Your task to perform on an android device: turn off translation in the chrome app Image 0: 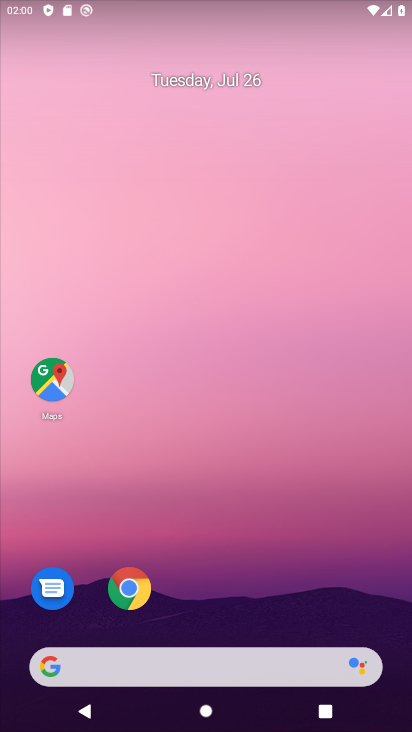
Step 0: drag from (242, 626) to (189, 163)
Your task to perform on an android device: turn off translation in the chrome app Image 1: 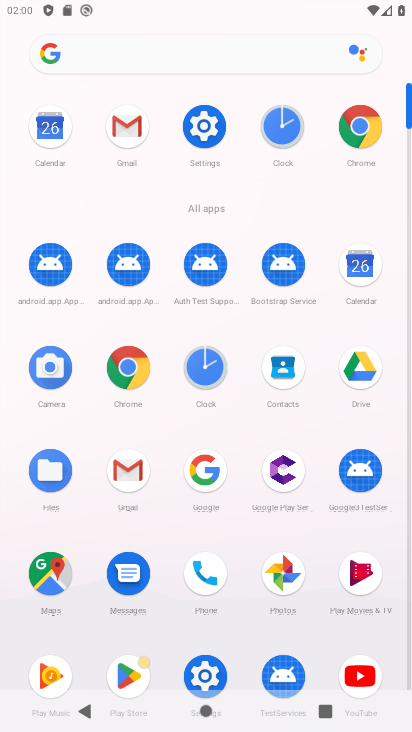
Step 1: click (357, 129)
Your task to perform on an android device: turn off translation in the chrome app Image 2: 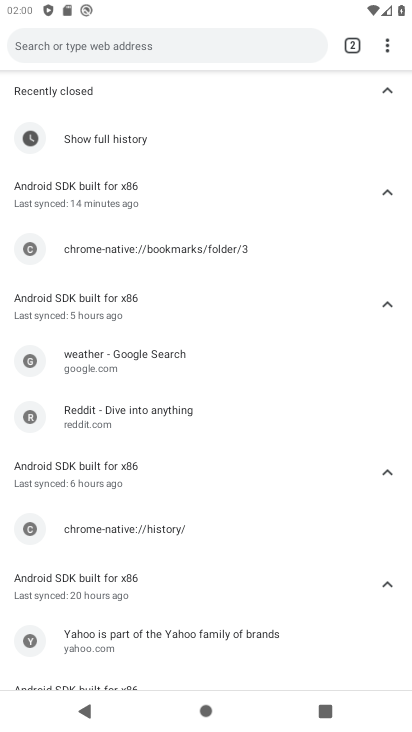
Step 2: click (390, 51)
Your task to perform on an android device: turn off translation in the chrome app Image 3: 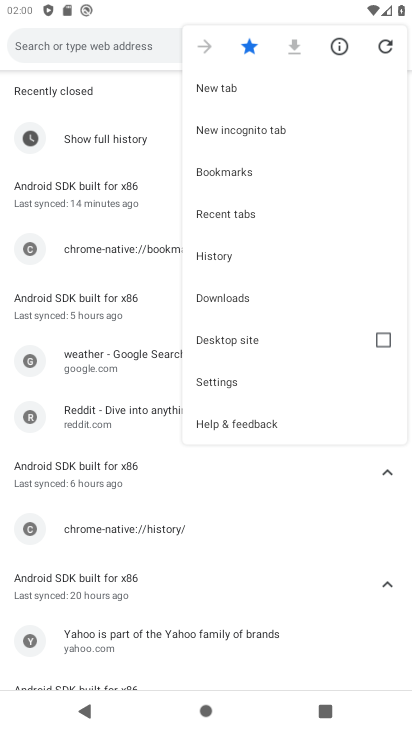
Step 3: click (249, 384)
Your task to perform on an android device: turn off translation in the chrome app Image 4: 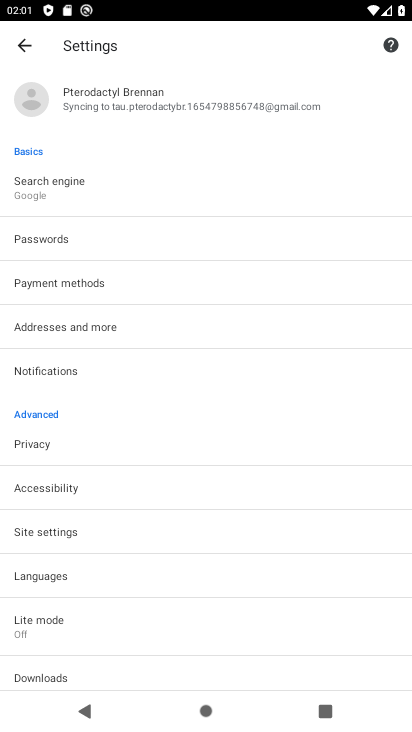
Step 4: click (161, 580)
Your task to perform on an android device: turn off translation in the chrome app Image 5: 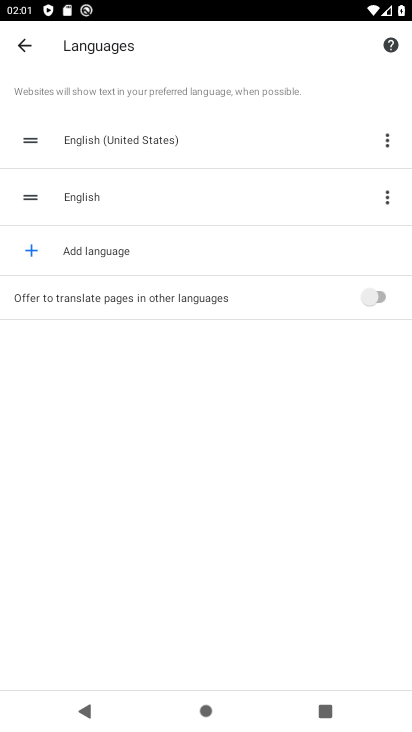
Step 5: task complete